Your task to perform on an android device: search for starred emails in the gmail app Image 0: 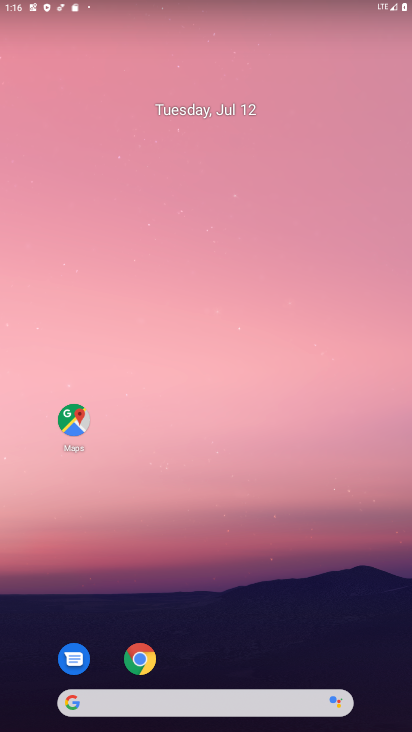
Step 0: drag from (214, 715) to (200, 191)
Your task to perform on an android device: search for starred emails in the gmail app Image 1: 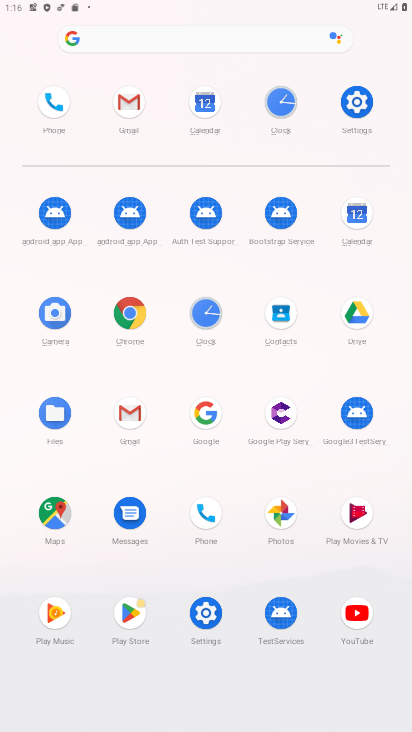
Step 1: click (132, 411)
Your task to perform on an android device: search for starred emails in the gmail app Image 2: 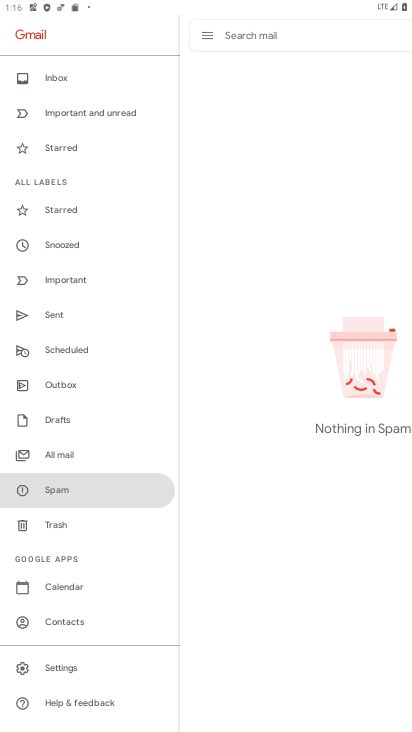
Step 2: click (63, 206)
Your task to perform on an android device: search for starred emails in the gmail app Image 3: 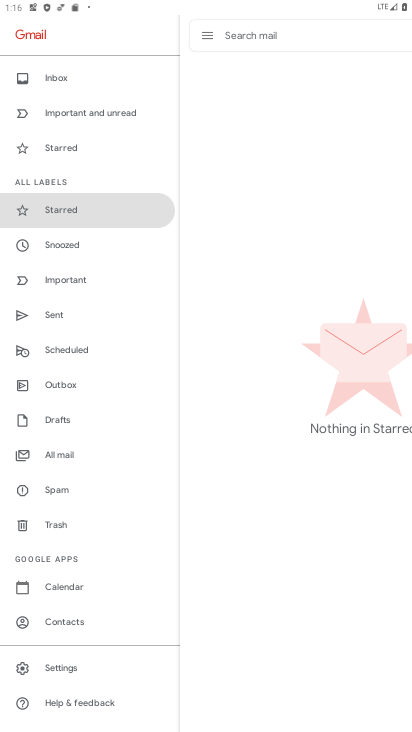
Step 3: task complete